Your task to perform on an android device: Go to CNN.com Image 0: 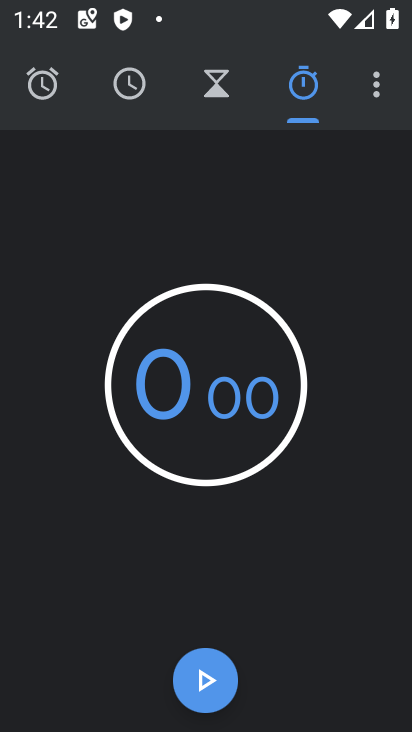
Step 0: press home button
Your task to perform on an android device: Go to CNN.com Image 1: 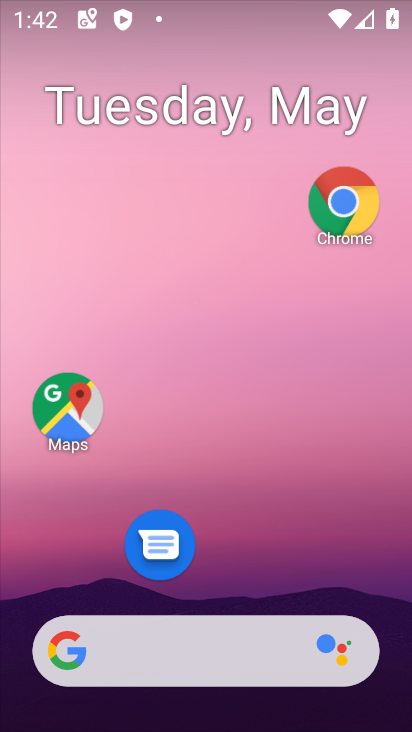
Step 1: click (205, 642)
Your task to perform on an android device: Go to CNN.com Image 2: 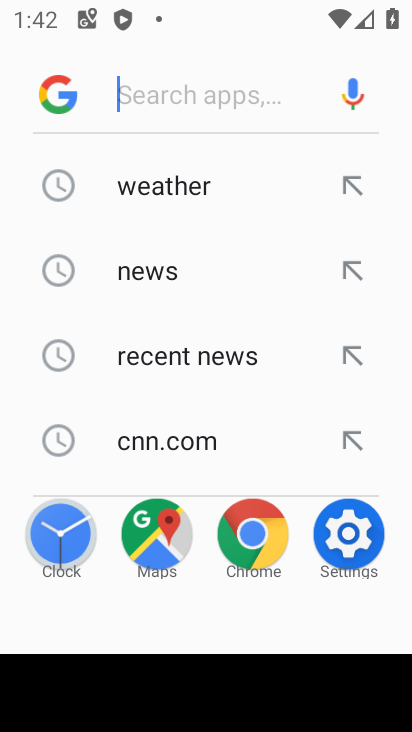
Step 2: click (193, 454)
Your task to perform on an android device: Go to CNN.com Image 3: 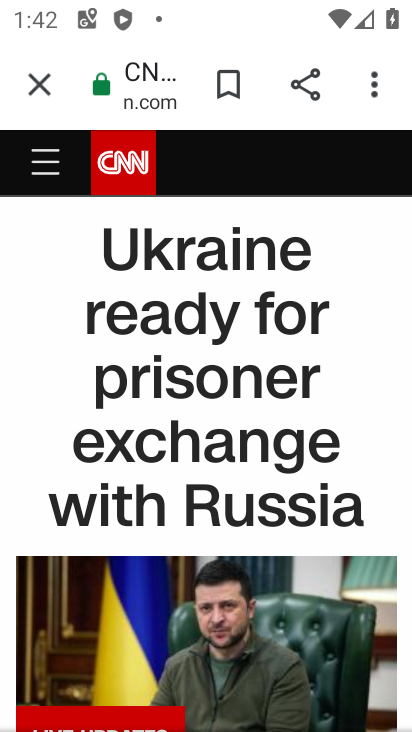
Step 3: task complete